Your task to perform on an android device: Do I have any events today? Image 0: 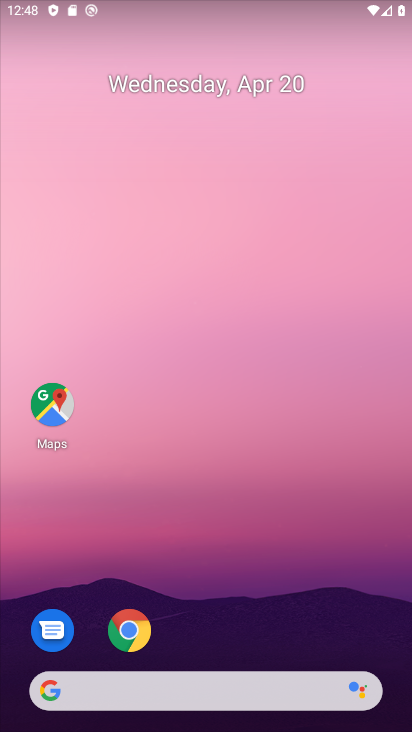
Step 0: drag from (340, 616) to (335, 296)
Your task to perform on an android device: Do I have any events today? Image 1: 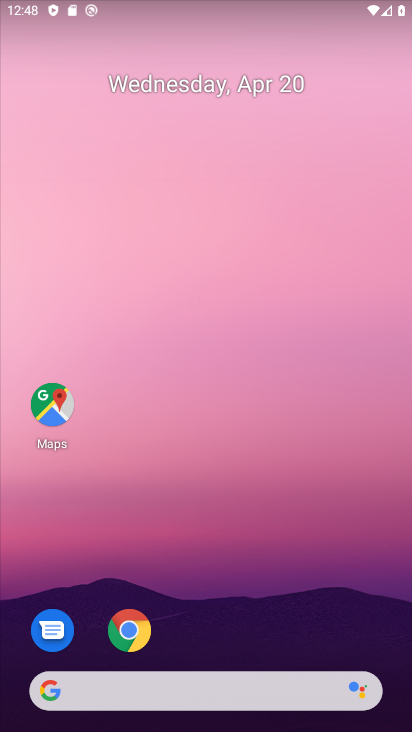
Step 1: drag from (342, 310) to (344, 147)
Your task to perform on an android device: Do I have any events today? Image 2: 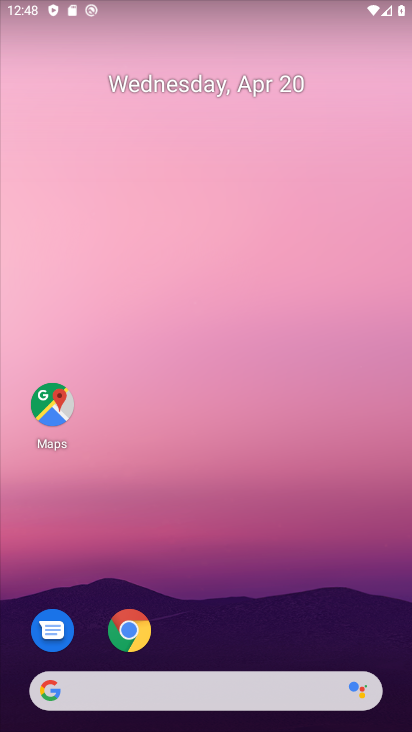
Step 2: drag from (397, 615) to (324, 217)
Your task to perform on an android device: Do I have any events today? Image 3: 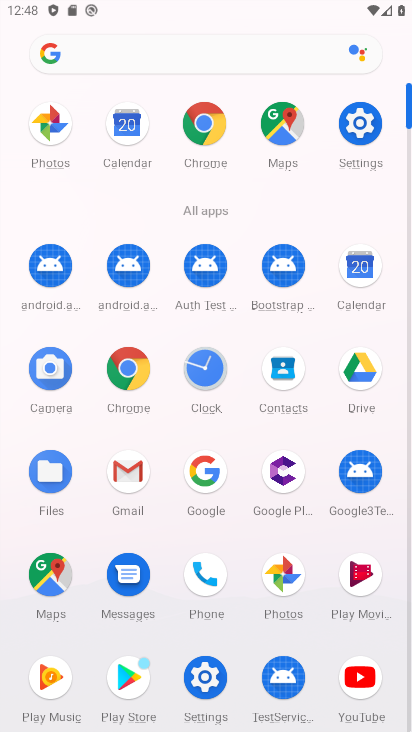
Step 3: click (357, 271)
Your task to perform on an android device: Do I have any events today? Image 4: 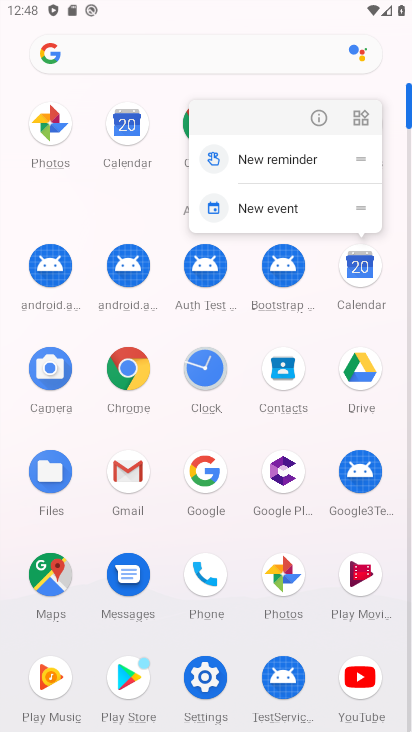
Step 4: click (357, 271)
Your task to perform on an android device: Do I have any events today? Image 5: 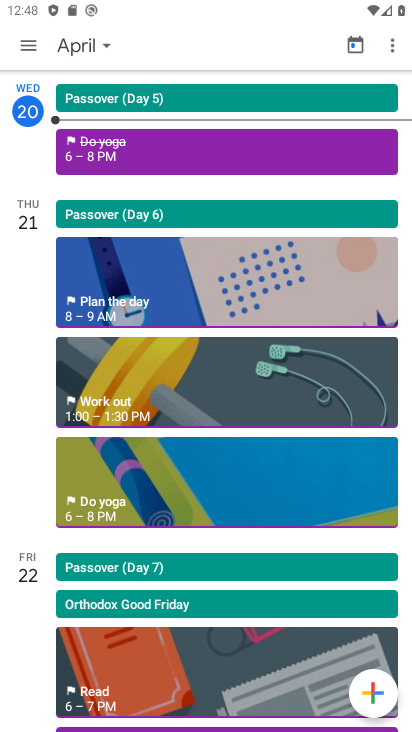
Step 5: task complete